Your task to perform on an android device: Open Maps and search for coffee Image 0: 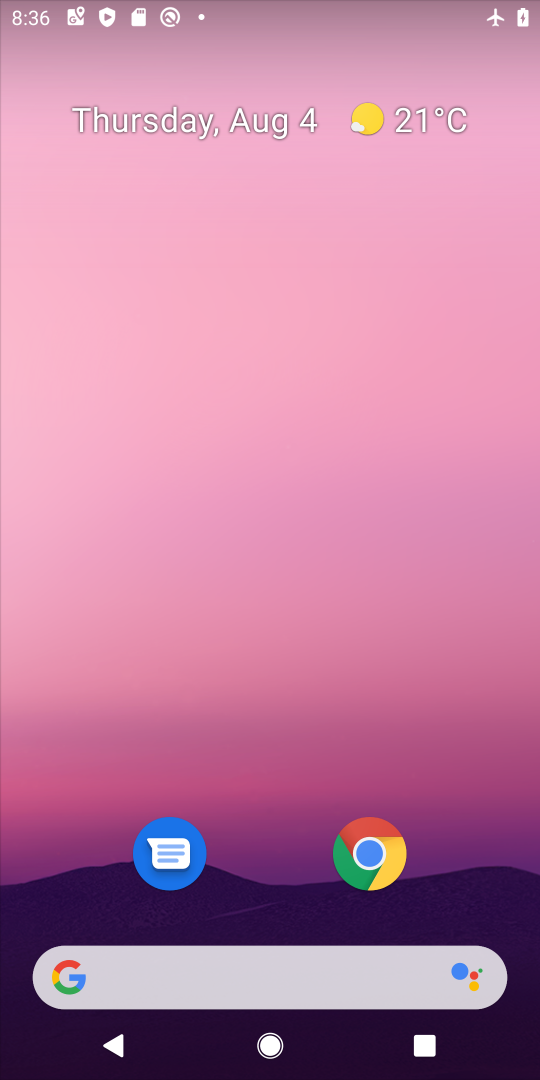
Step 0: drag from (232, 897) to (281, 375)
Your task to perform on an android device: Open Maps and search for coffee Image 1: 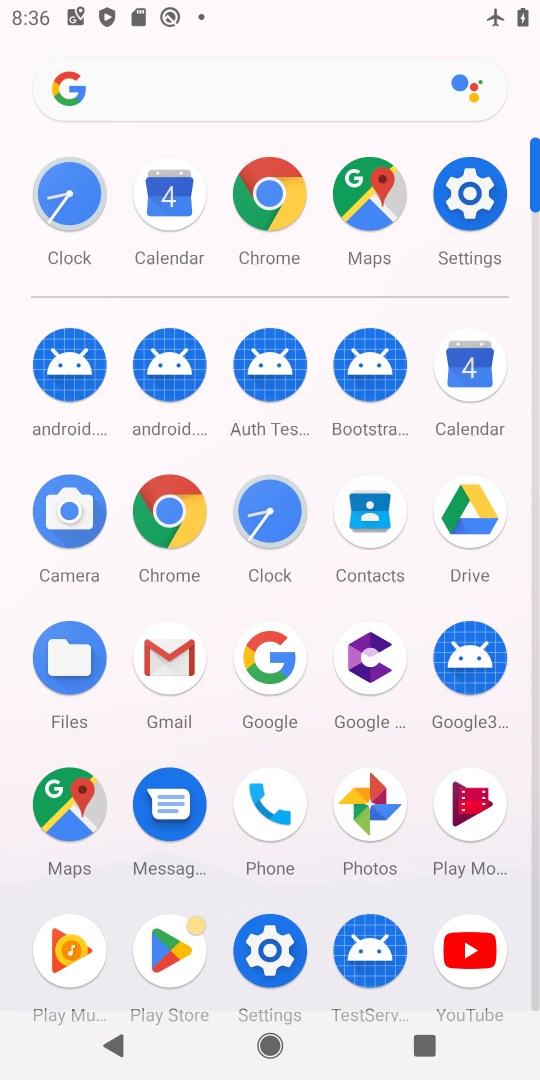
Step 1: click (357, 201)
Your task to perform on an android device: Open Maps and search for coffee Image 2: 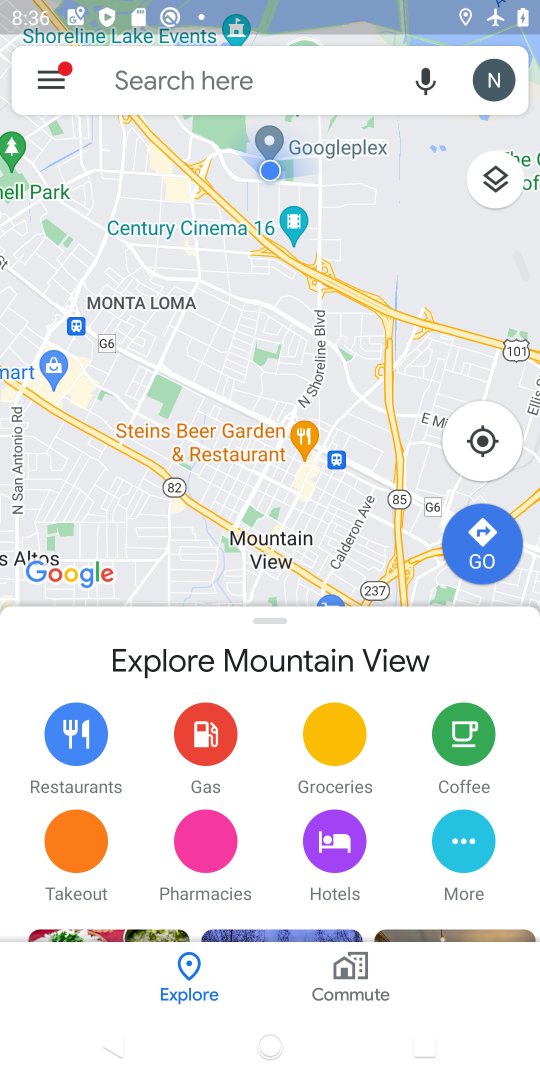
Step 2: click (277, 76)
Your task to perform on an android device: Open Maps and search for coffee Image 3: 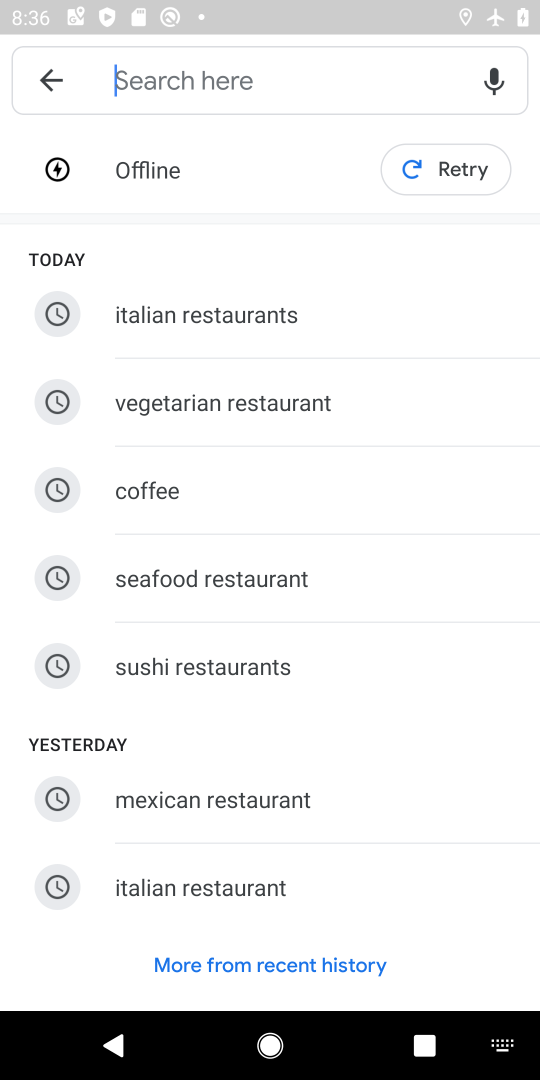
Step 3: click (201, 488)
Your task to perform on an android device: Open Maps and search for coffee Image 4: 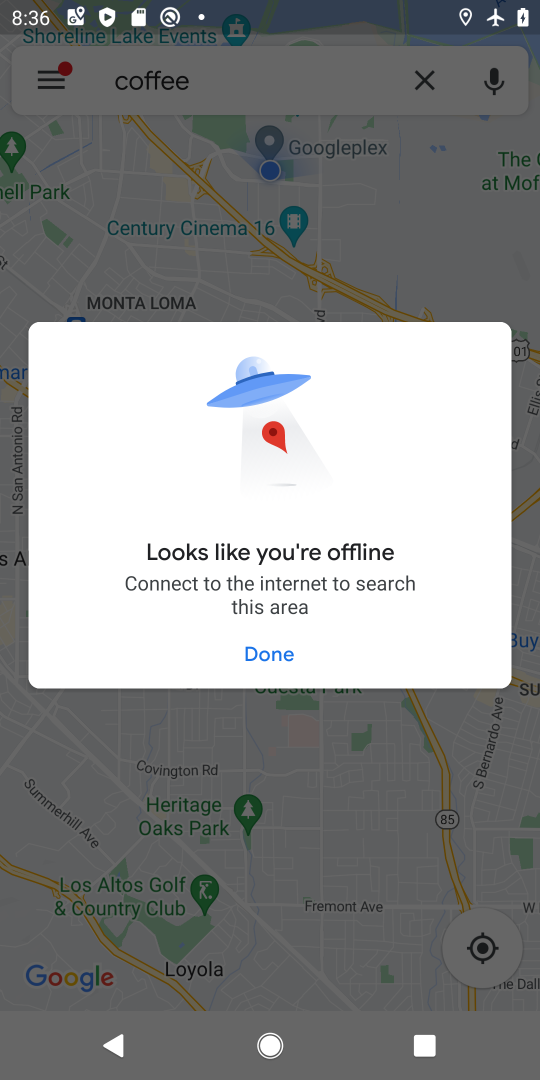
Step 4: click (279, 643)
Your task to perform on an android device: Open Maps and search for coffee Image 5: 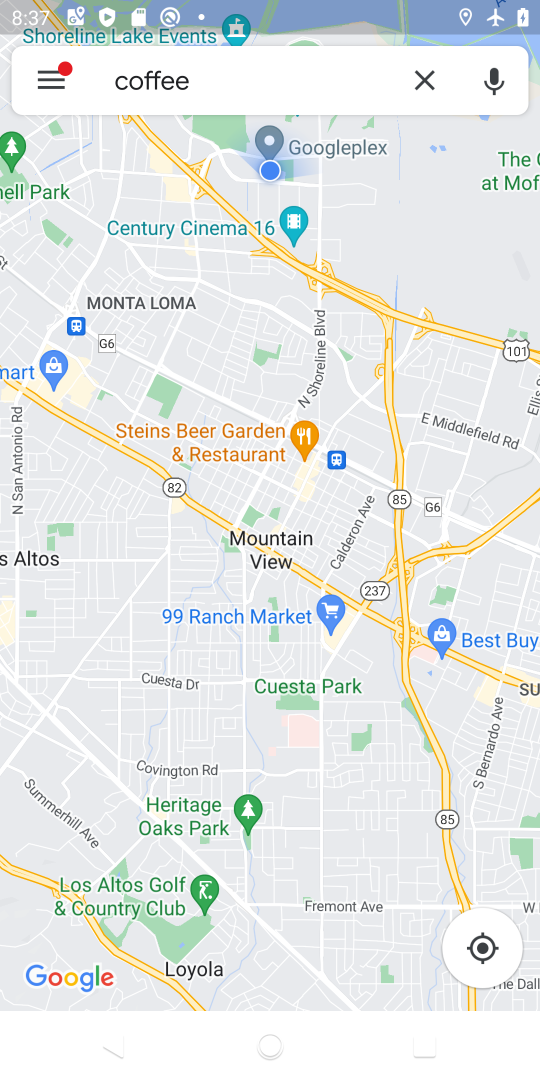
Step 5: drag from (364, 16) to (372, 598)
Your task to perform on an android device: Open Maps and search for coffee Image 6: 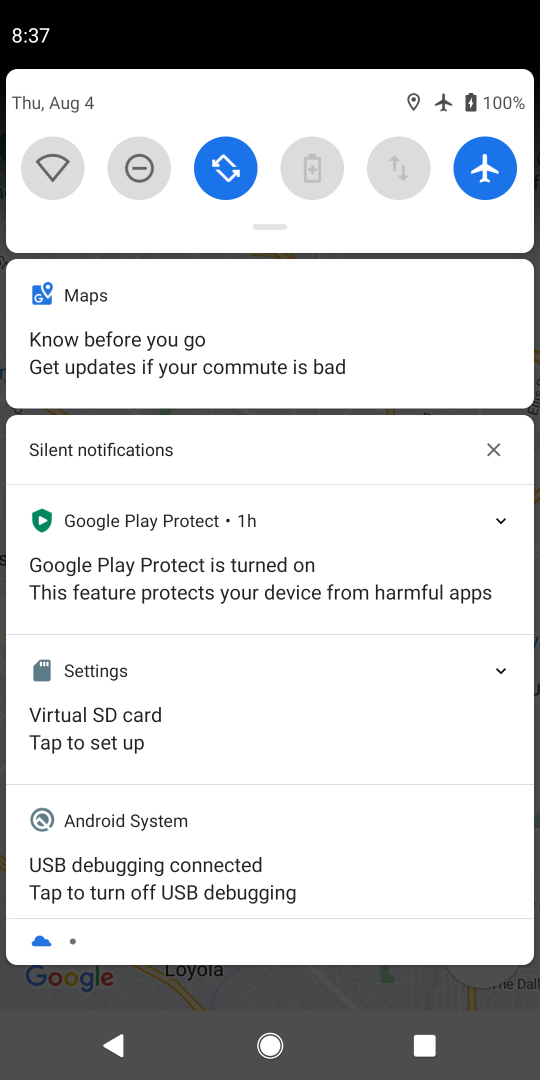
Step 6: click (486, 172)
Your task to perform on an android device: Open Maps and search for coffee Image 7: 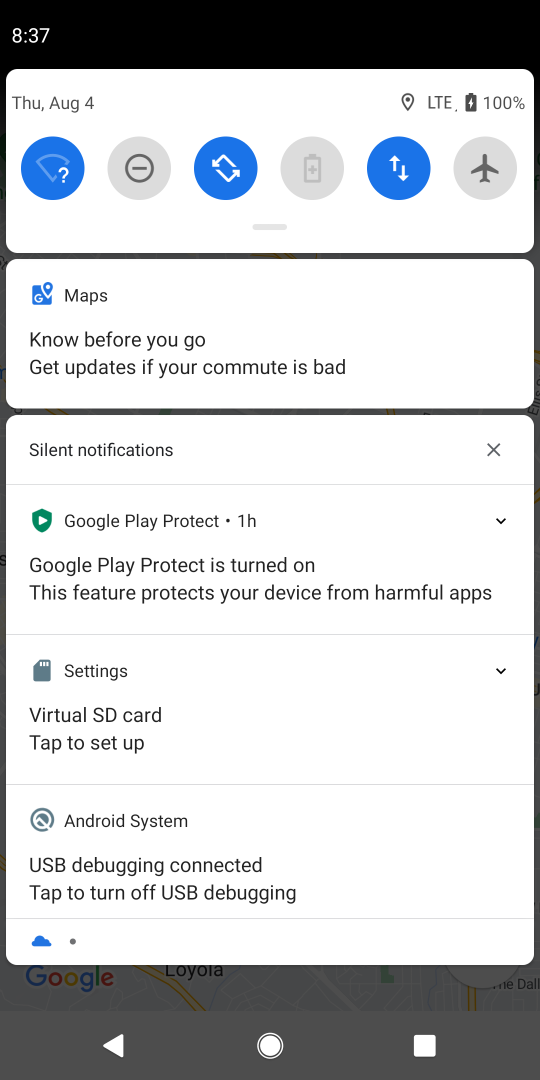
Step 7: click (376, 980)
Your task to perform on an android device: Open Maps and search for coffee Image 8: 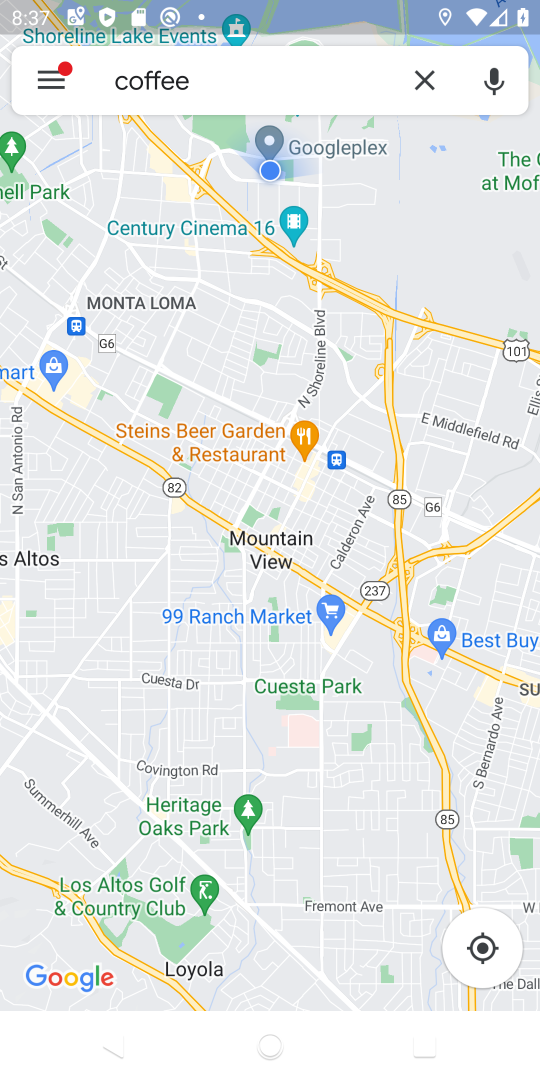
Step 8: drag from (267, 37) to (267, 334)
Your task to perform on an android device: Open Maps and search for coffee Image 9: 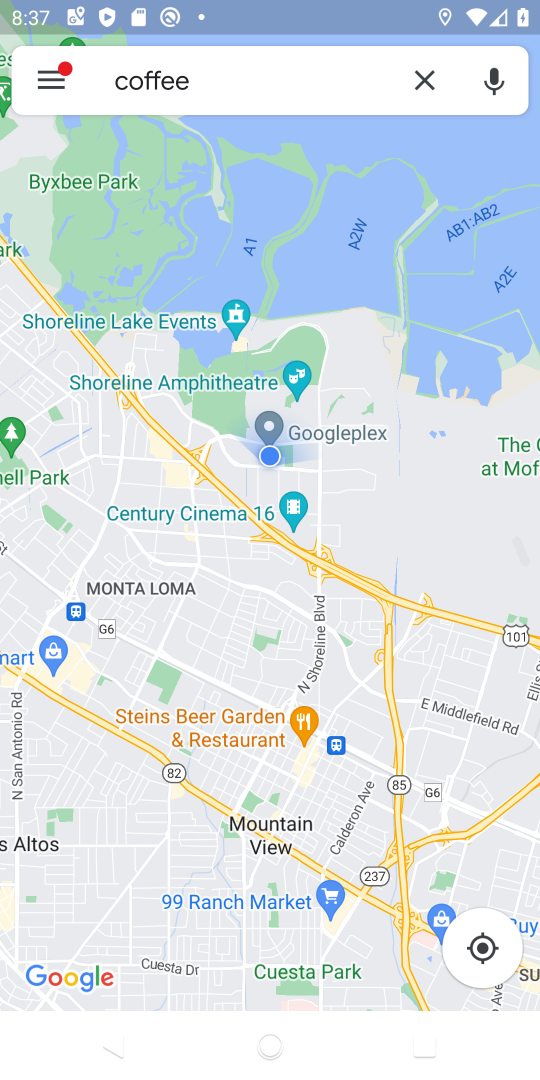
Step 9: click (207, 87)
Your task to perform on an android device: Open Maps and search for coffee Image 10: 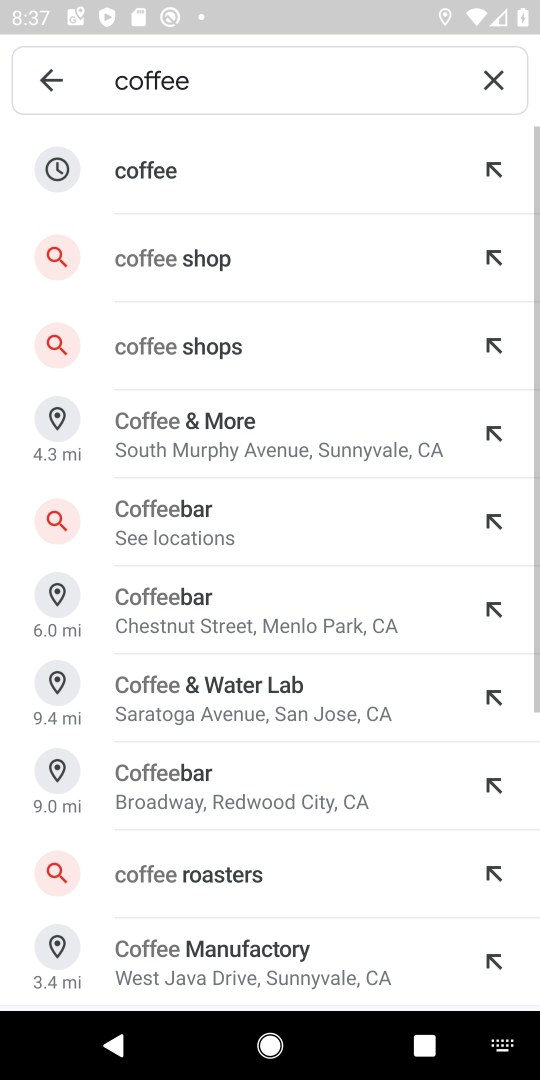
Step 10: click (203, 169)
Your task to perform on an android device: Open Maps and search for coffee Image 11: 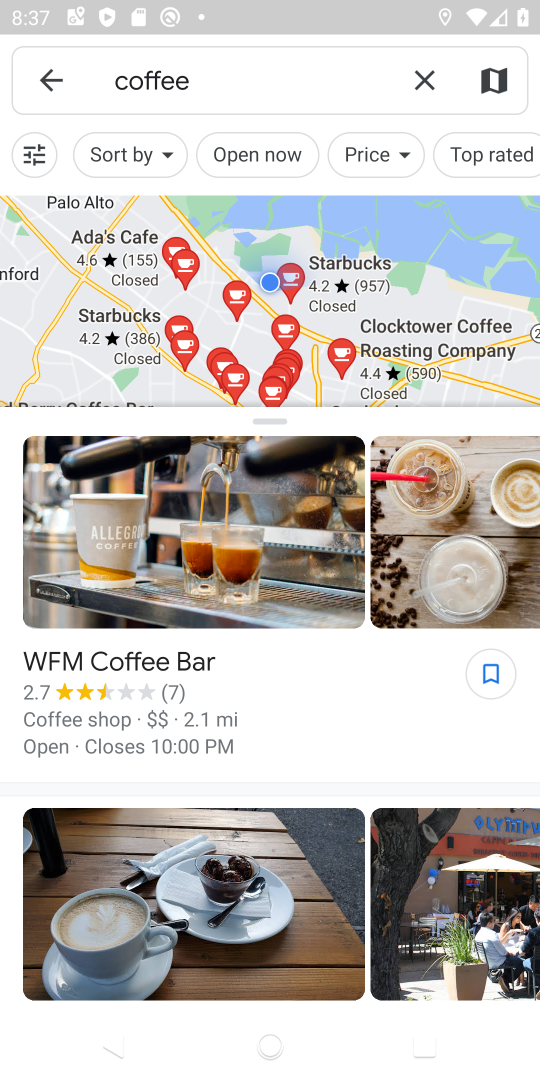
Step 11: task complete